Your task to perform on an android device: Toggle the flashlight Image 0: 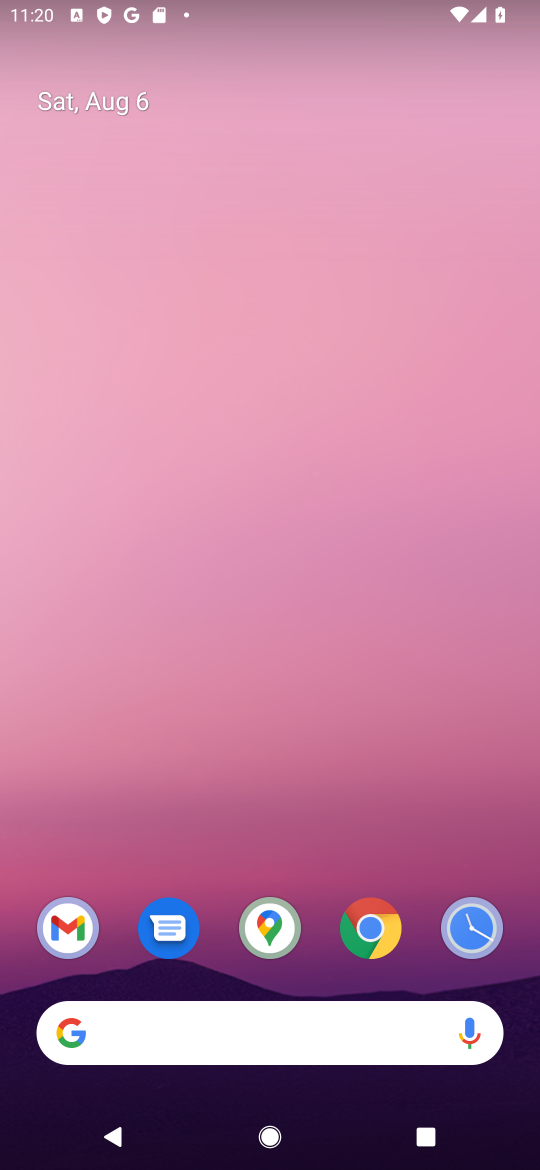
Step 0: task complete